Your task to perform on an android device: Go to sound settings Image 0: 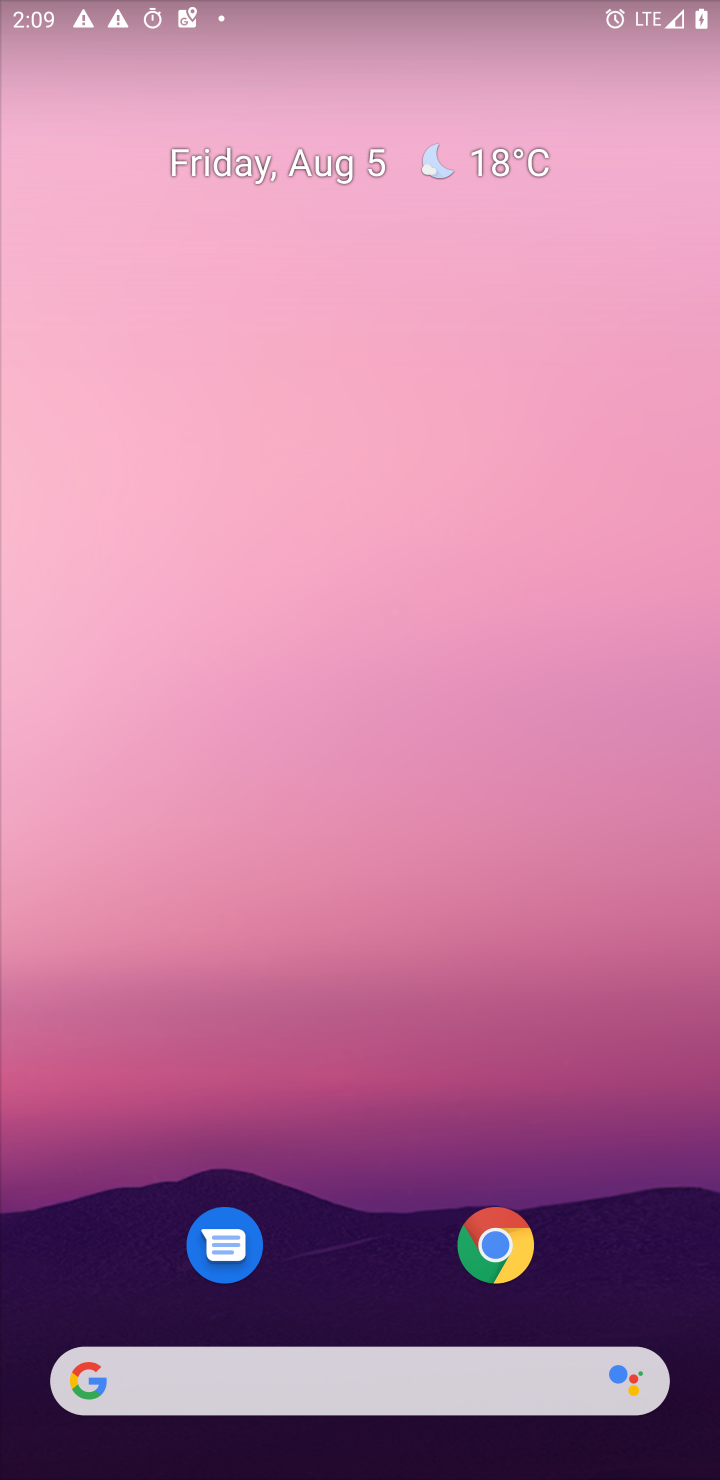
Step 0: press home button
Your task to perform on an android device: Go to sound settings Image 1: 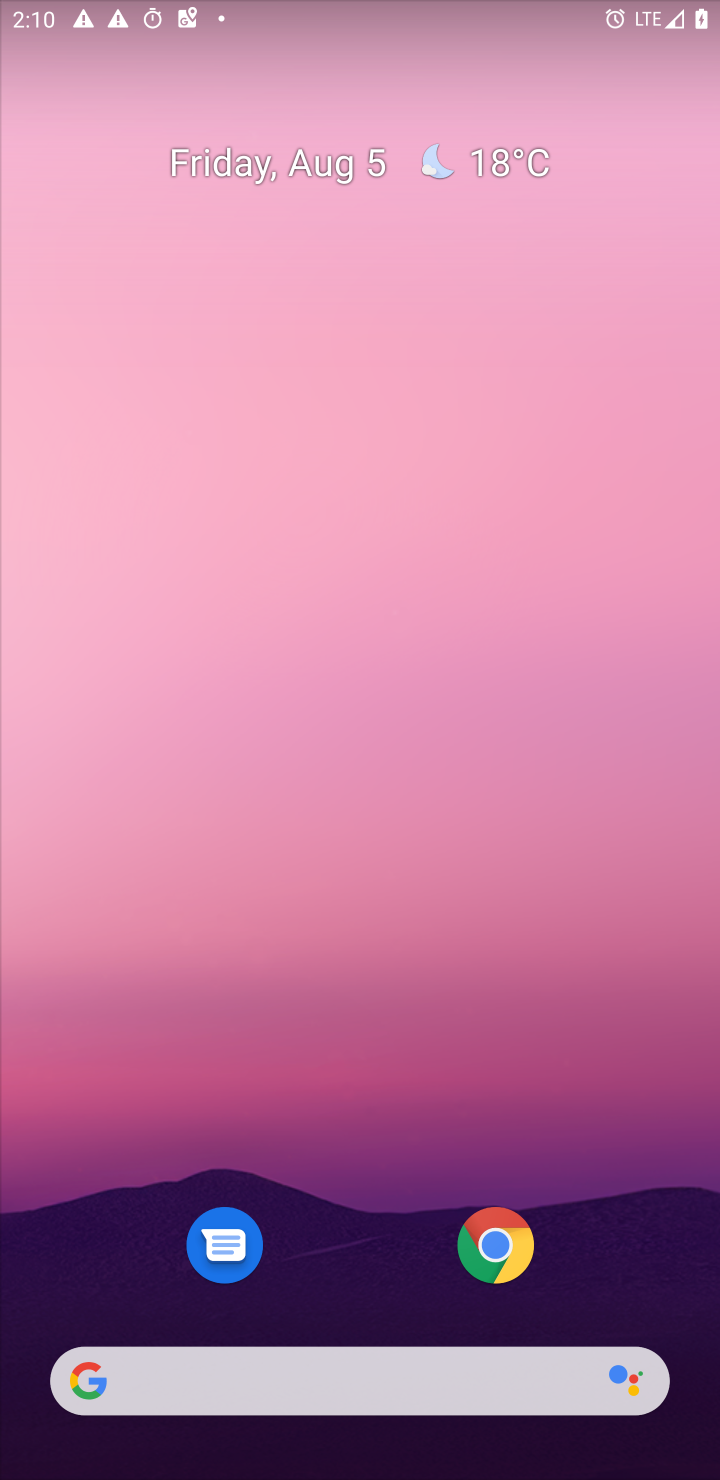
Step 1: drag from (533, 586) to (670, 77)
Your task to perform on an android device: Go to sound settings Image 2: 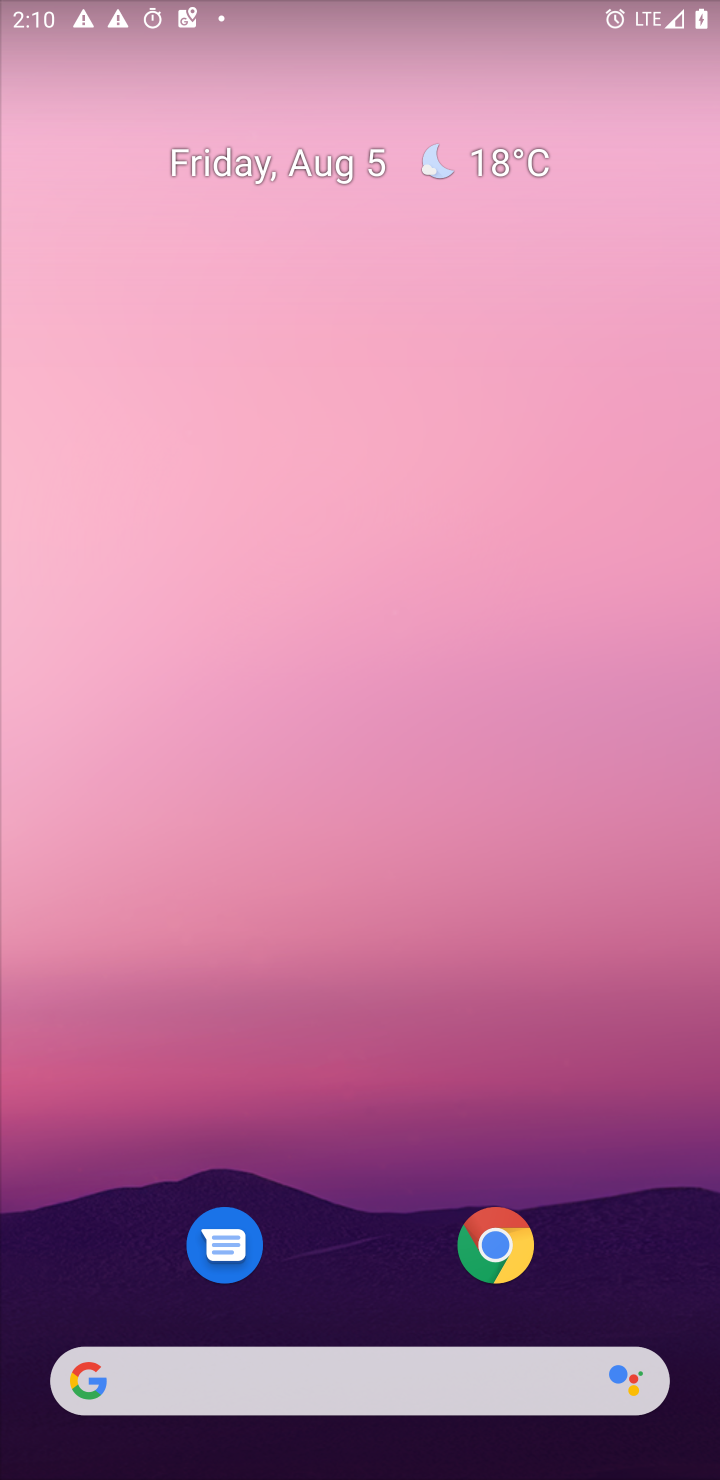
Step 2: drag from (364, 1027) to (431, 40)
Your task to perform on an android device: Go to sound settings Image 3: 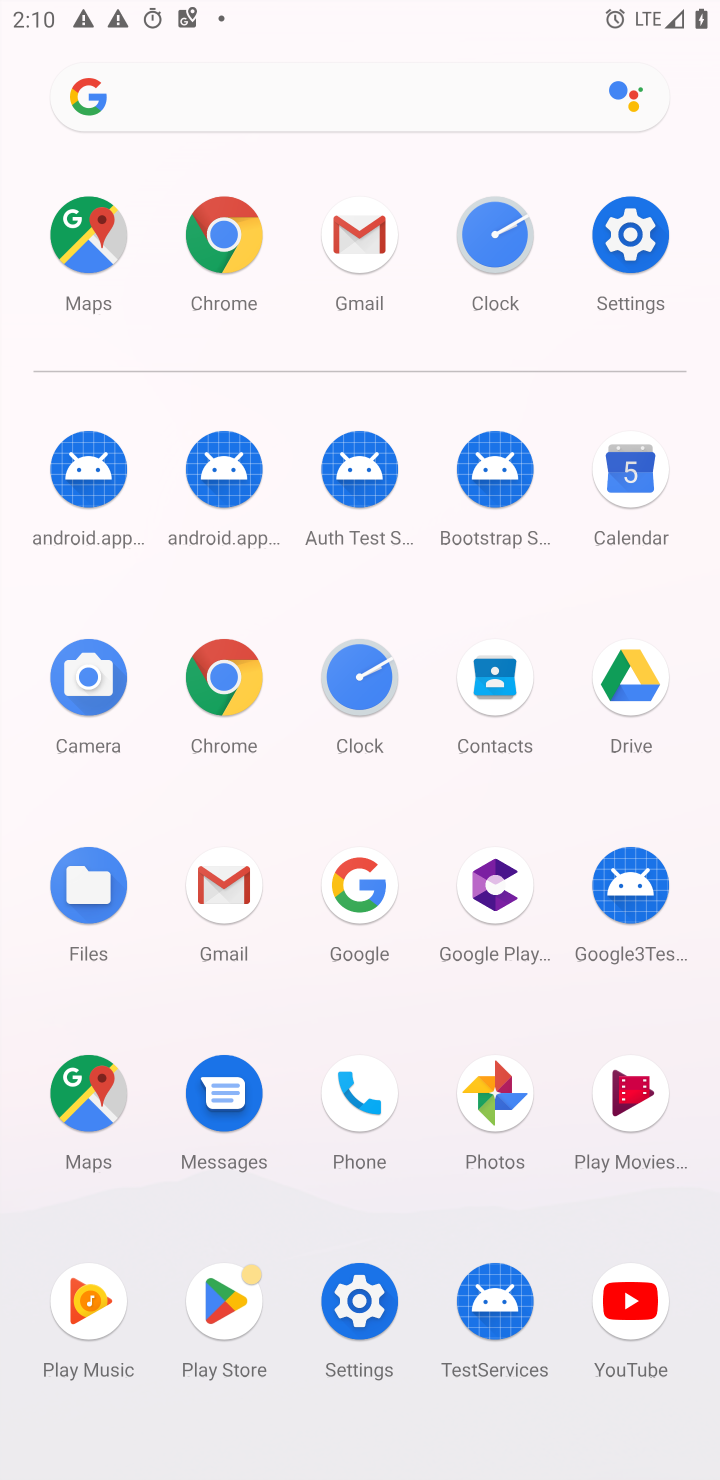
Step 3: click (624, 264)
Your task to perform on an android device: Go to sound settings Image 4: 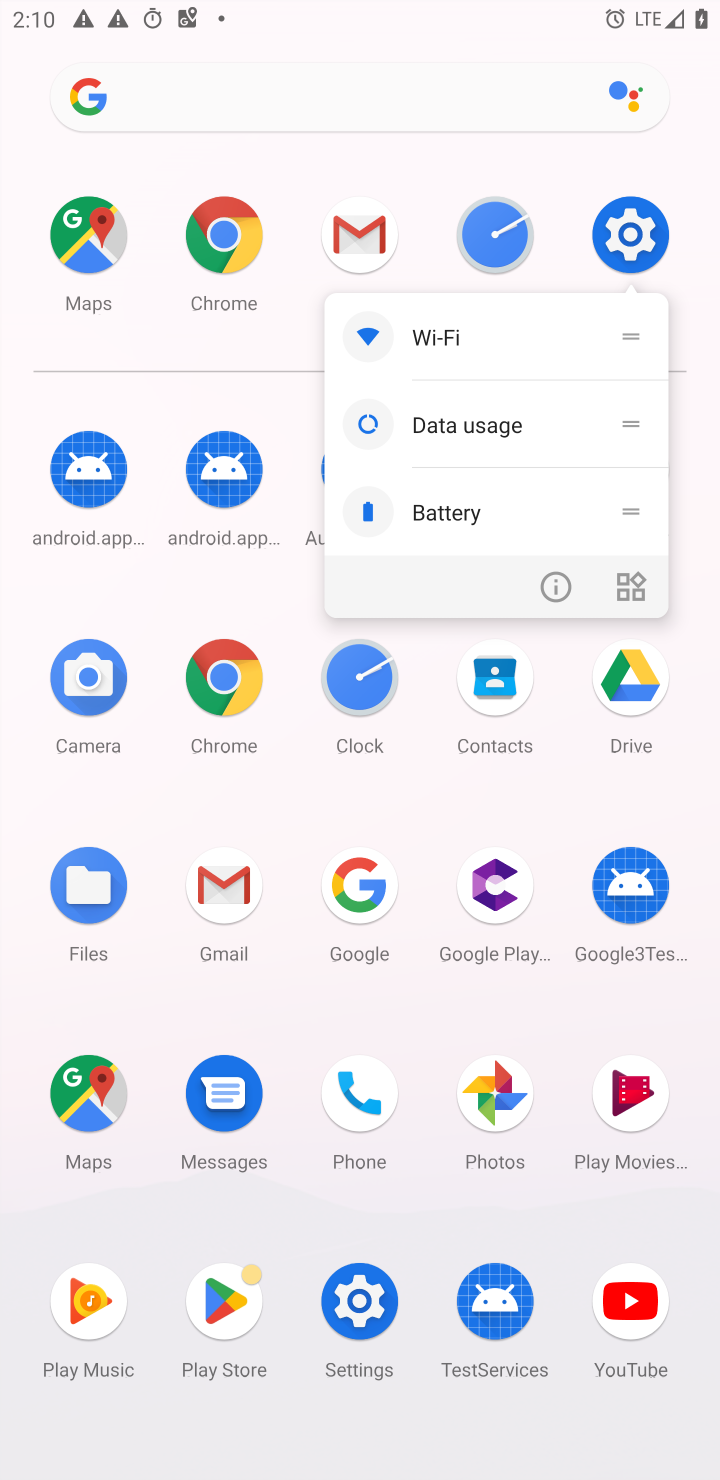
Step 4: click (624, 264)
Your task to perform on an android device: Go to sound settings Image 5: 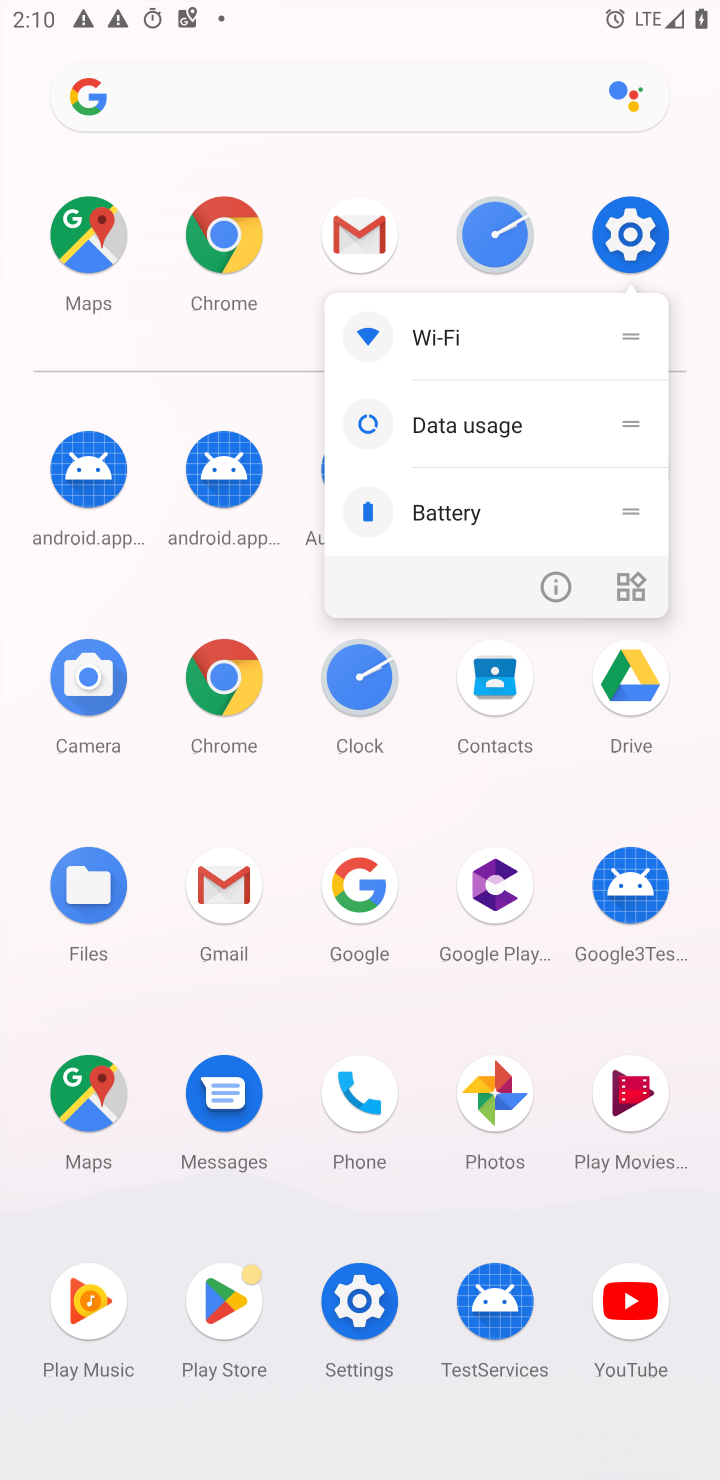
Step 5: click (624, 264)
Your task to perform on an android device: Go to sound settings Image 6: 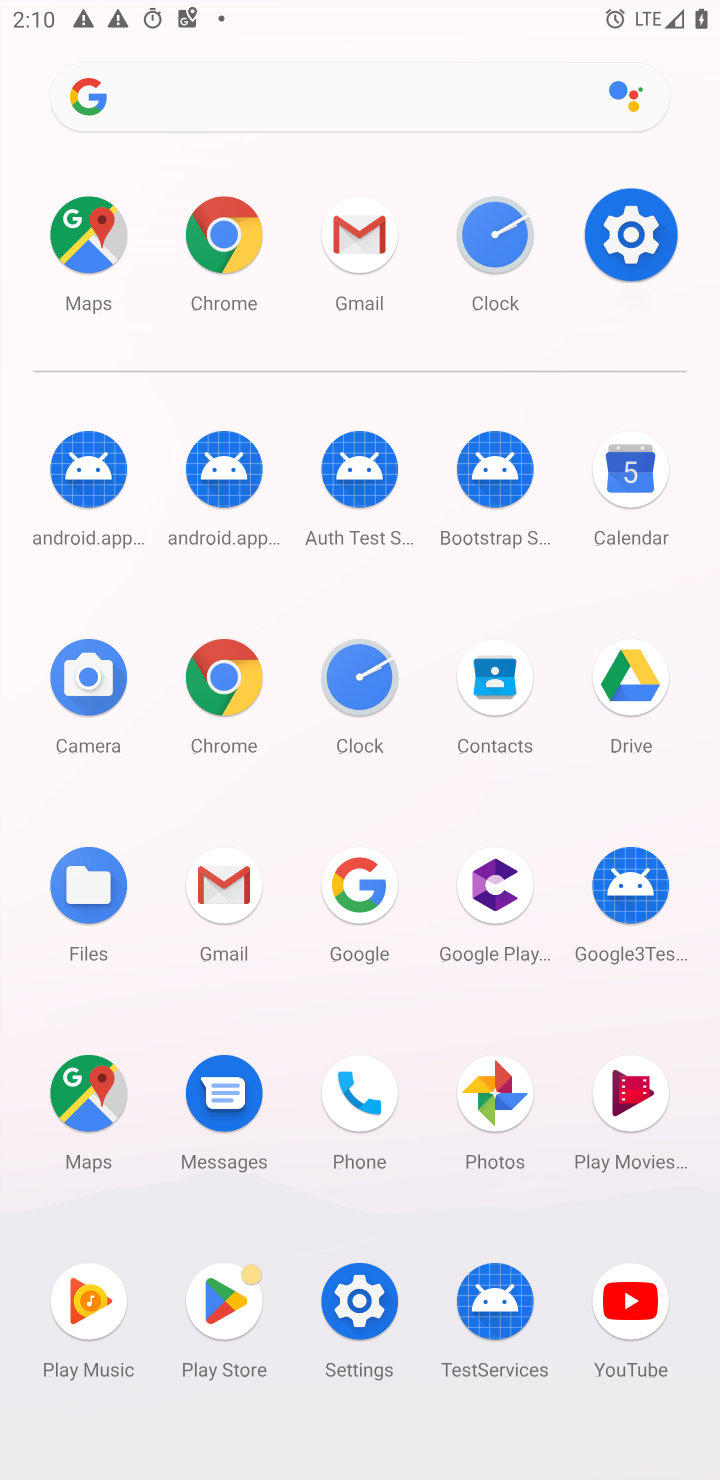
Step 6: click (624, 264)
Your task to perform on an android device: Go to sound settings Image 7: 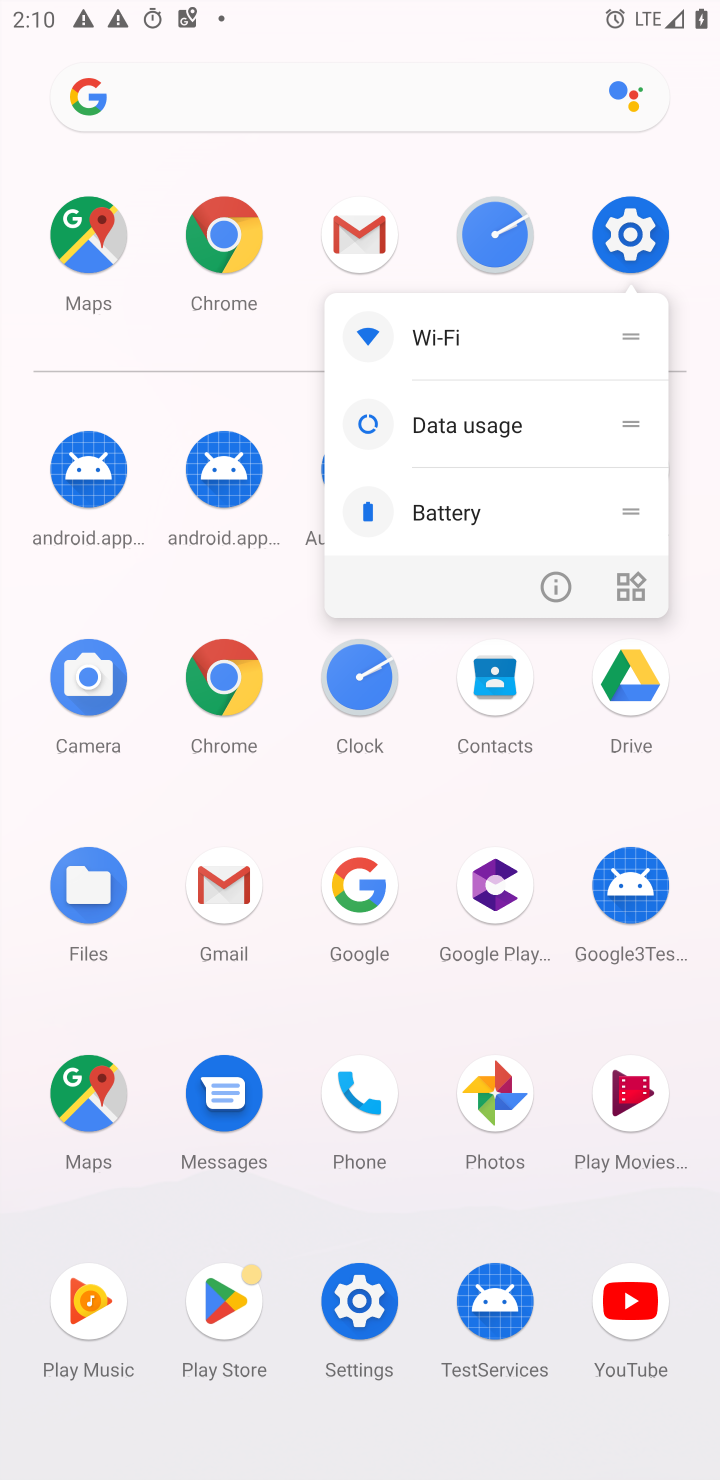
Step 7: click (651, 240)
Your task to perform on an android device: Go to sound settings Image 8: 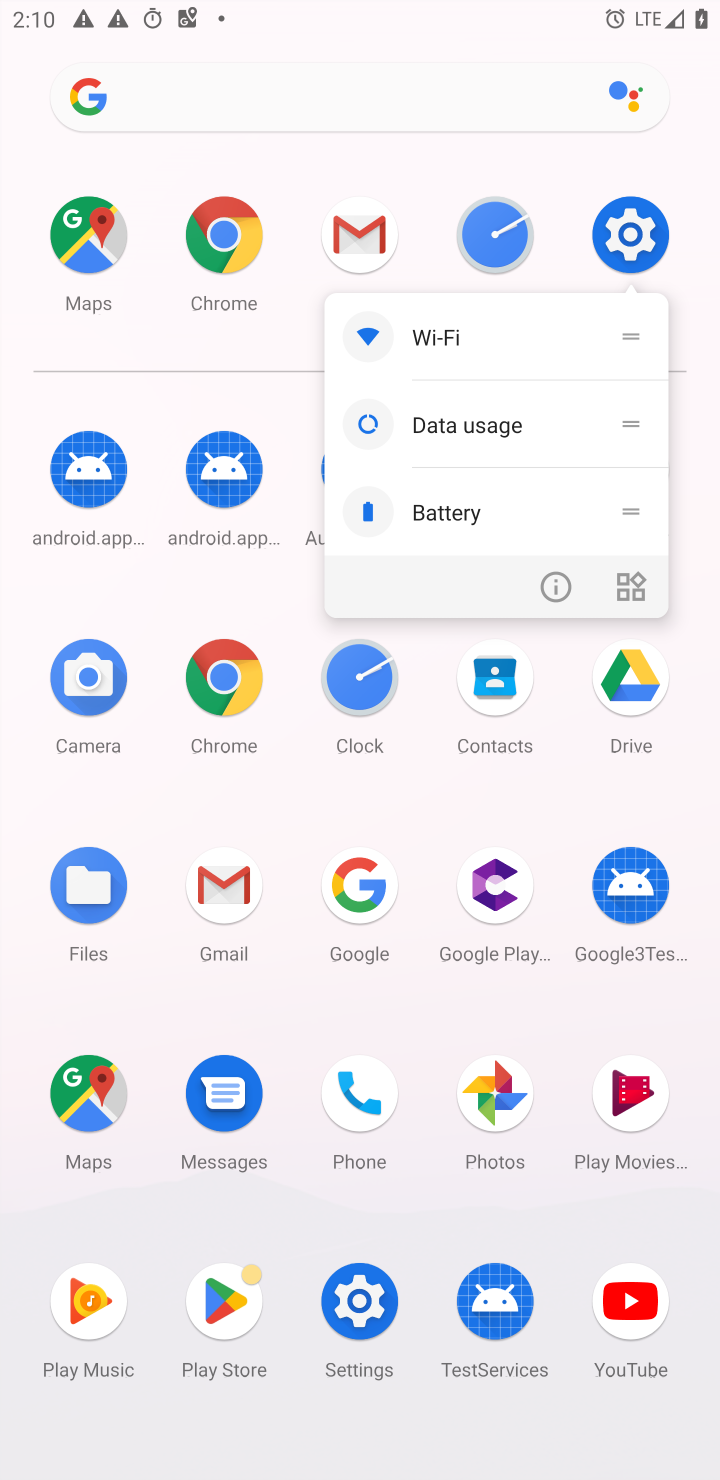
Step 8: click (636, 229)
Your task to perform on an android device: Go to sound settings Image 9: 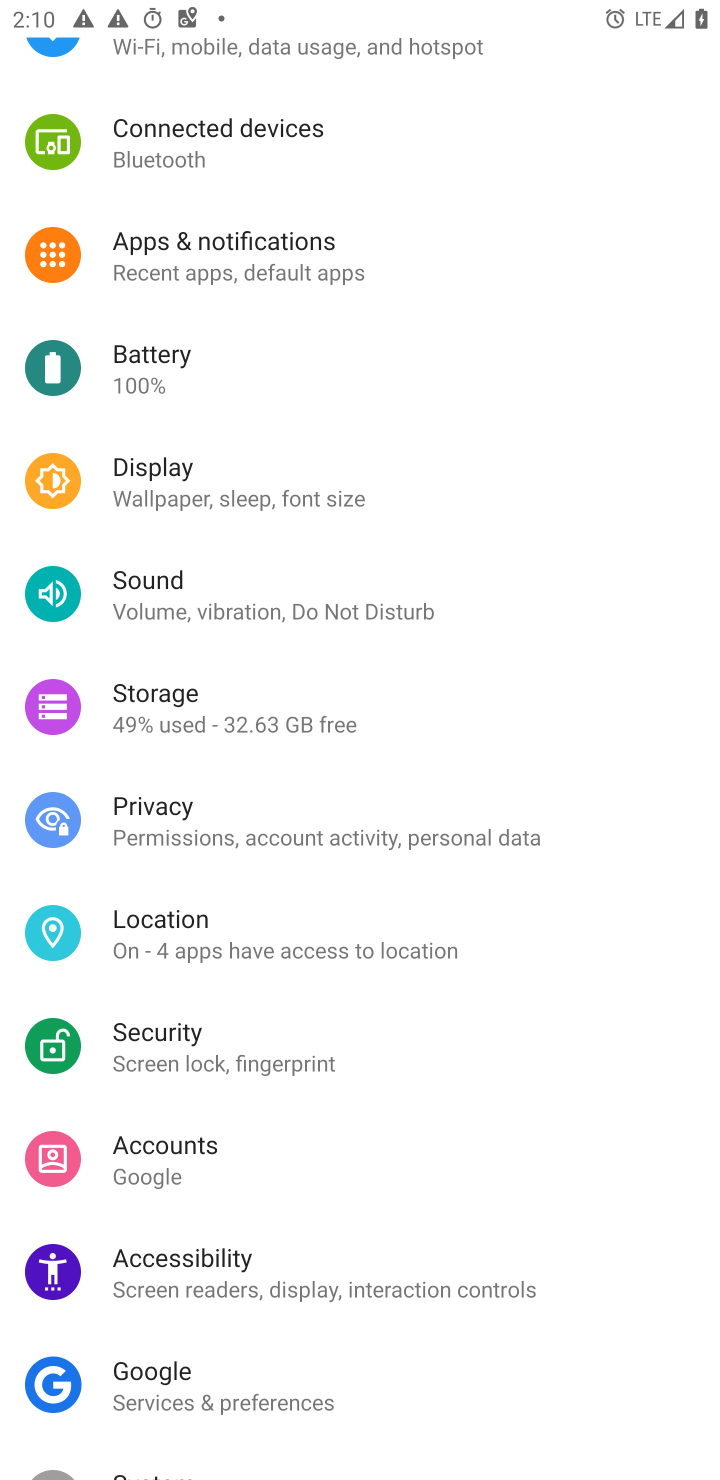
Step 9: click (146, 609)
Your task to perform on an android device: Go to sound settings Image 10: 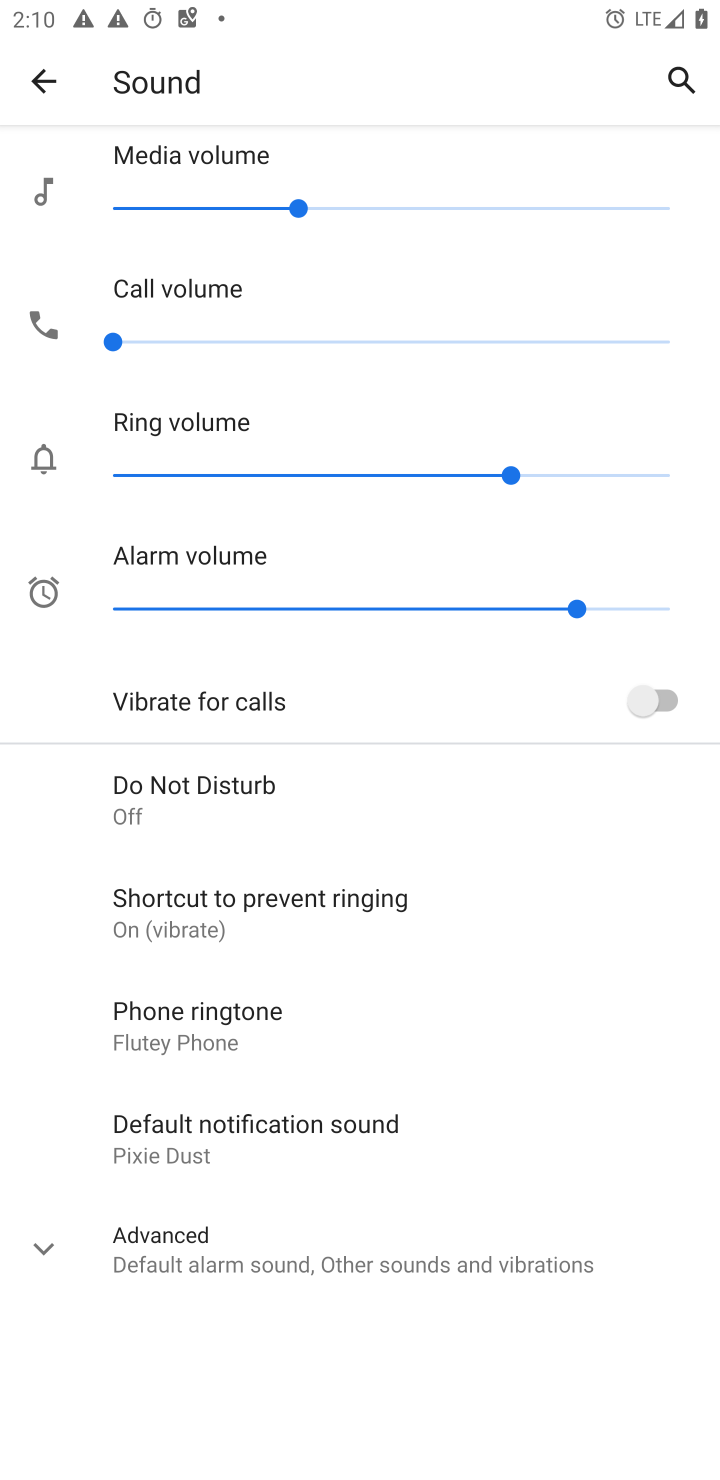
Step 10: task complete